Your task to perform on an android device: choose inbox layout in the gmail app Image 0: 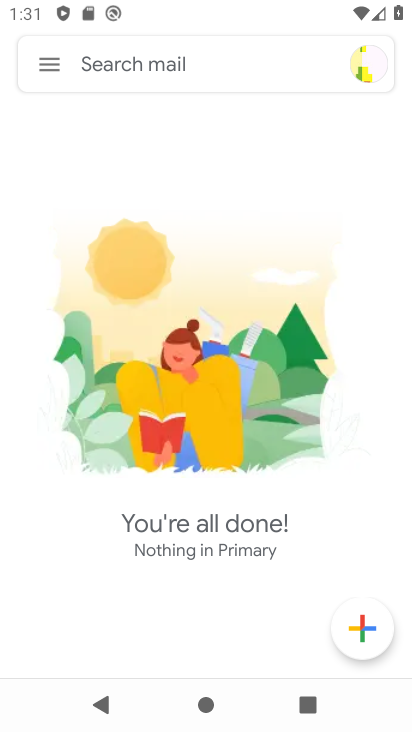
Step 0: click (37, 71)
Your task to perform on an android device: choose inbox layout in the gmail app Image 1: 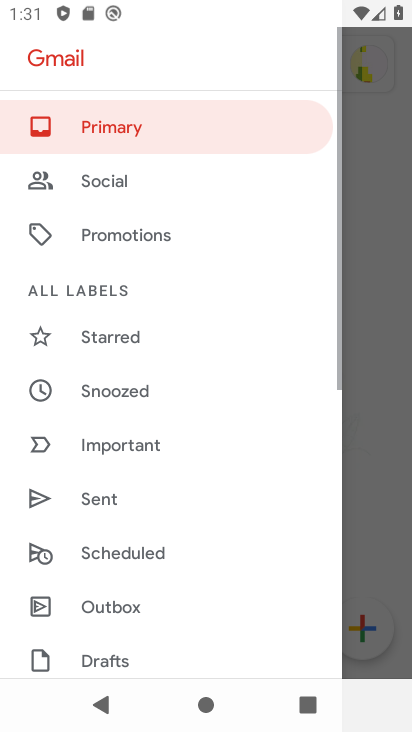
Step 1: drag from (138, 572) to (74, 15)
Your task to perform on an android device: choose inbox layout in the gmail app Image 2: 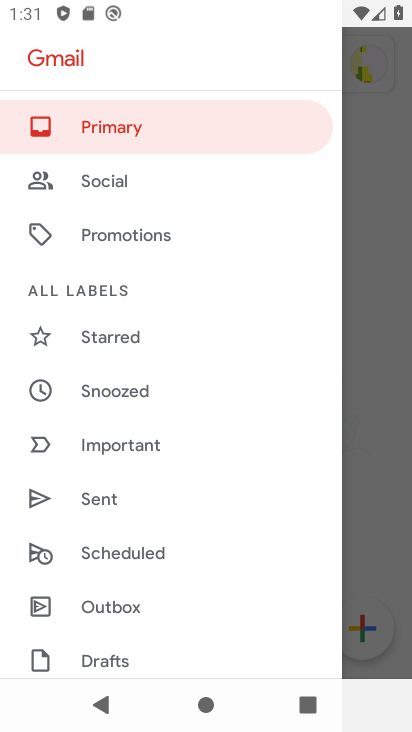
Step 2: drag from (126, 622) to (169, 146)
Your task to perform on an android device: choose inbox layout in the gmail app Image 3: 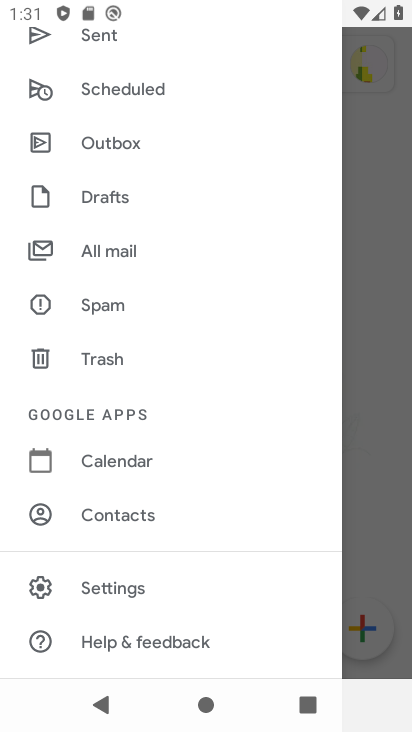
Step 3: click (94, 587)
Your task to perform on an android device: choose inbox layout in the gmail app Image 4: 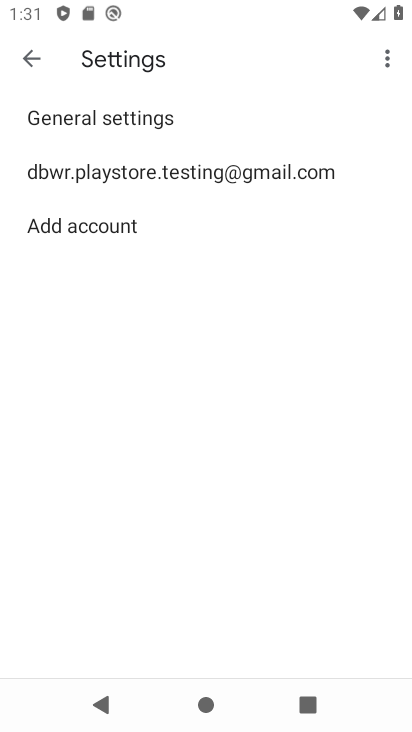
Step 4: click (74, 172)
Your task to perform on an android device: choose inbox layout in the gmail app Image 5: 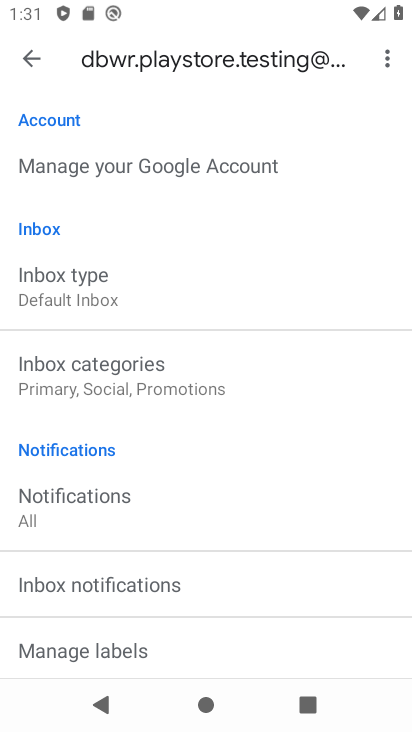
Step 5: click (54, 306)
Your task to perform on an android device: choose inbox layout in the gmail app Image 6: 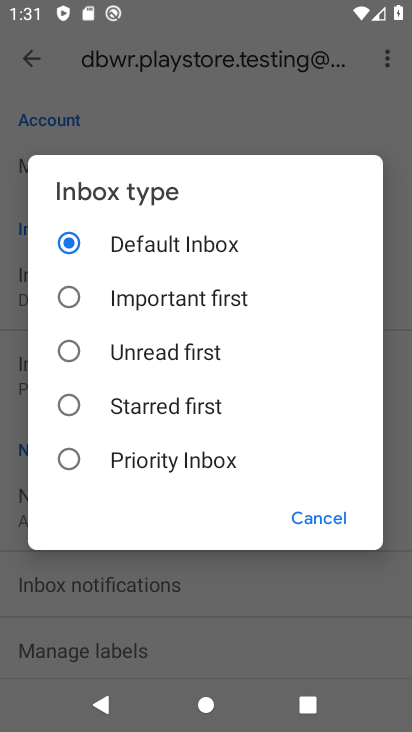
Step 6: click (161, 301)
Your task to perform on an android device: choose inbox layout in the gmail app Image 7: 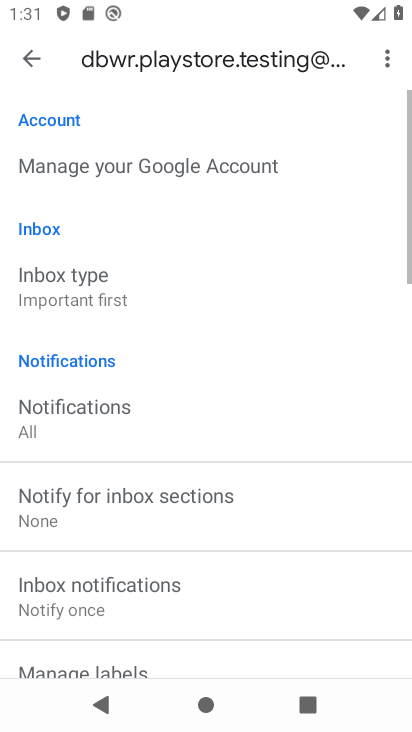
Step 7: task complete